Your task to perform on an android device: Play the last video I watched on Youtube Image 0: 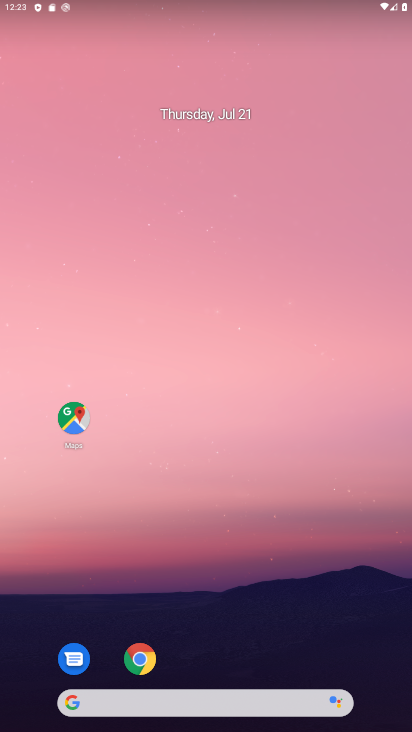
Step 0: drag from (222, 697) to (235, 106)
Your task to perform on an android device: Play the last video I watched on Youtube Image 1: 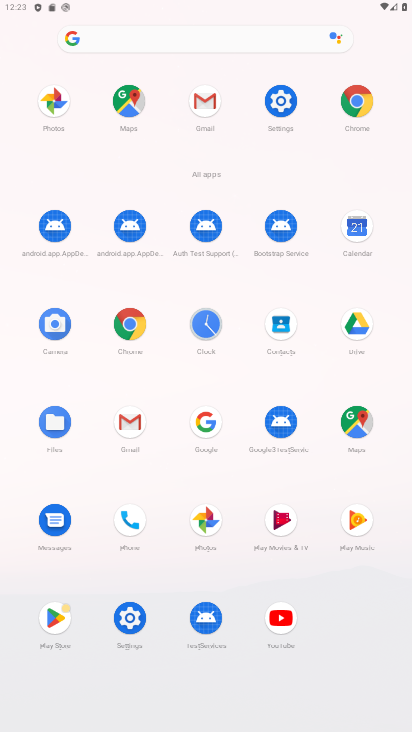
Step 1: click (280, 615)
Your task to perform on an android device: Play the last video I watched on Youtube Image 2: 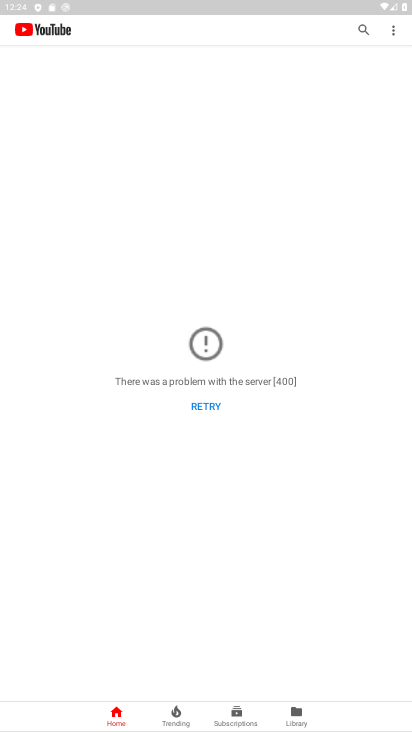
Step 2: click (298, 711)
Your task to perform on an android device: Play the last video I watched on Youtube Image 3: 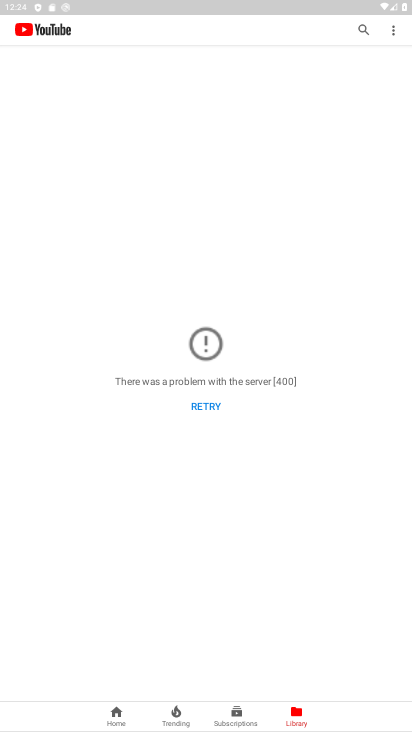
Step 3: click (298, 711)
Your task to perform on an android device: Play the last video I watched on Youtube Image 4: 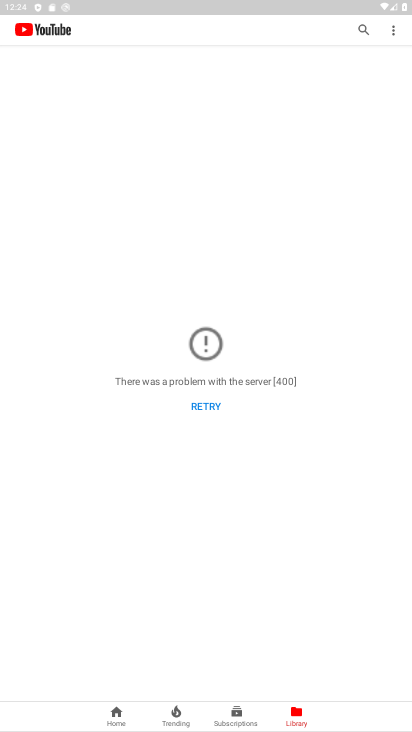
Step 4: click (201, 405)
Your task to perform on an android device: Play the last video I watched on Youtube Image 5: 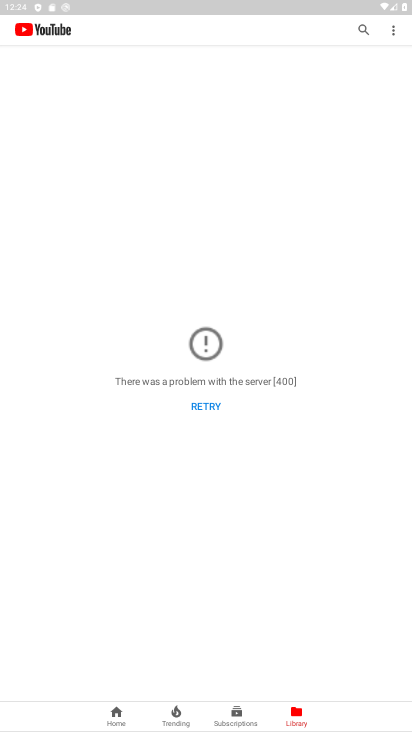
Step 5: click (201, 405)
Your task to perform on an android device: Play the last video I watched on Youtube Image 6: 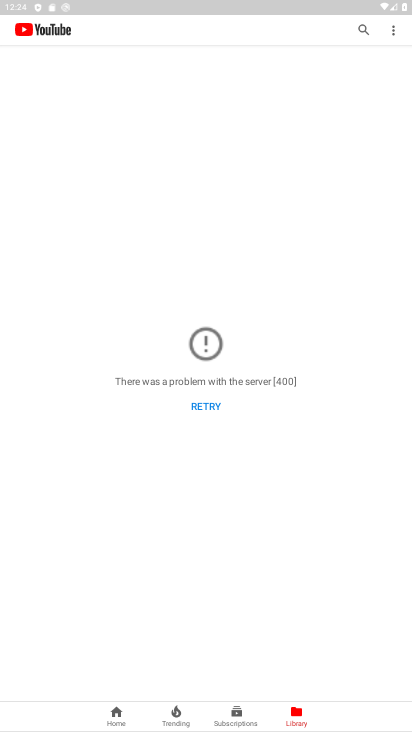
Step 6: task complete